Your task to perform on an android device: Find a good burger place on Maps Image 0: 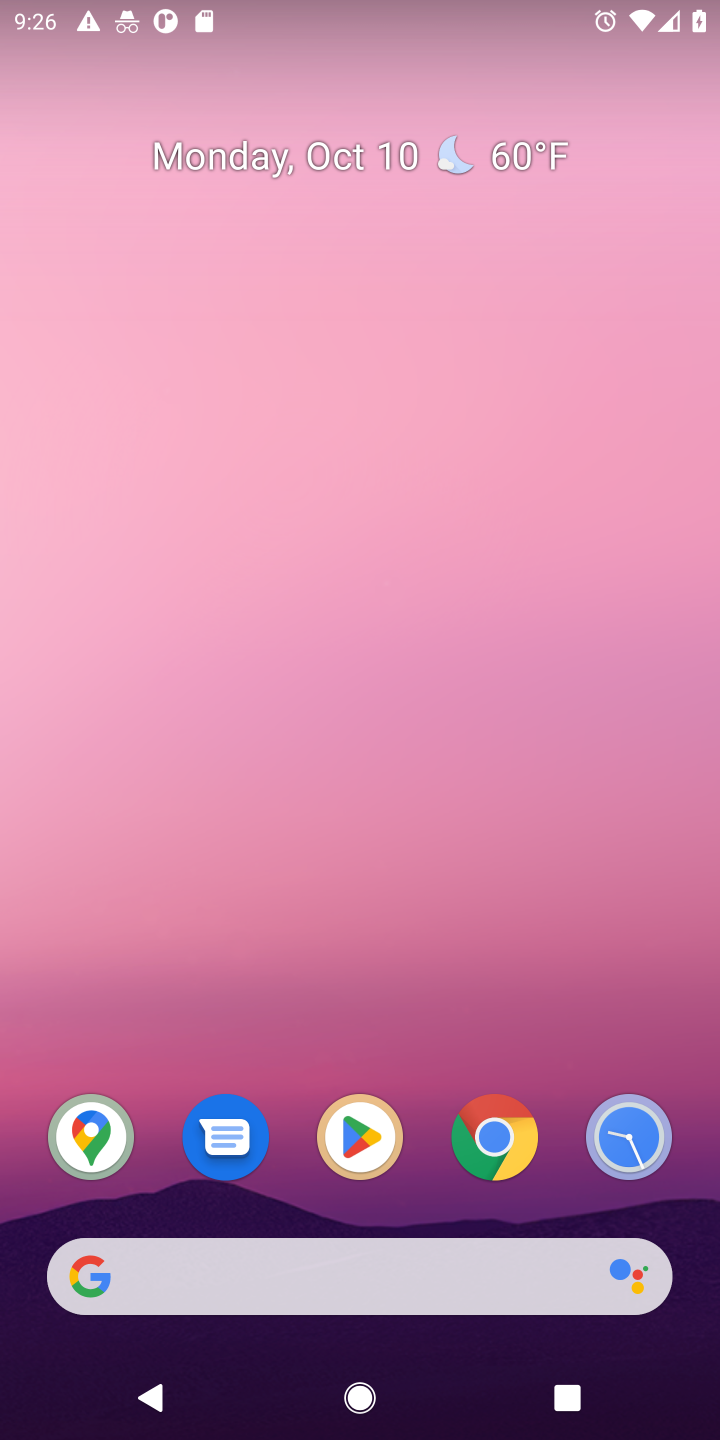
Step 0: click (88, 1128)
Your task to perform on an android device: Find a good burger place on Maps Image 1: 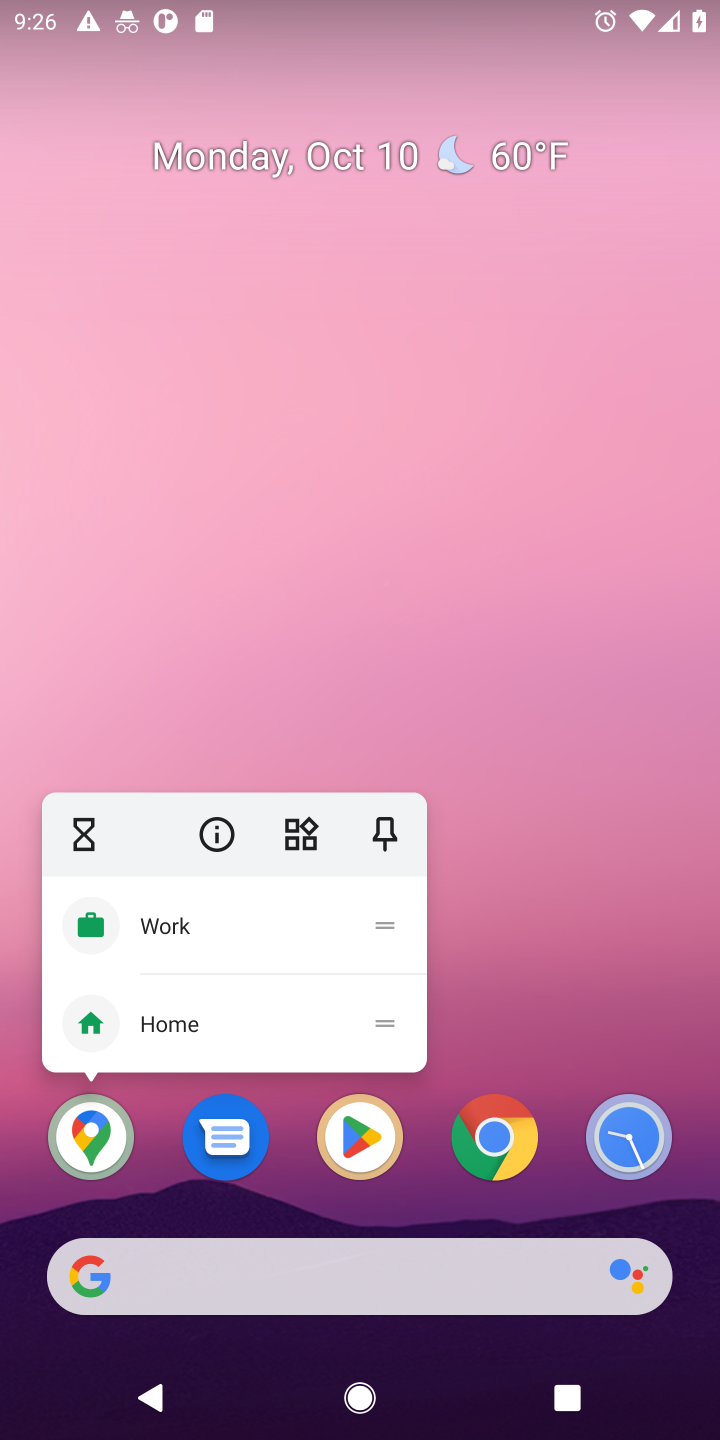
Step 1: click (88, 1128)
Your task to perform on an android device: Find a good burger place on Maps Image 2: 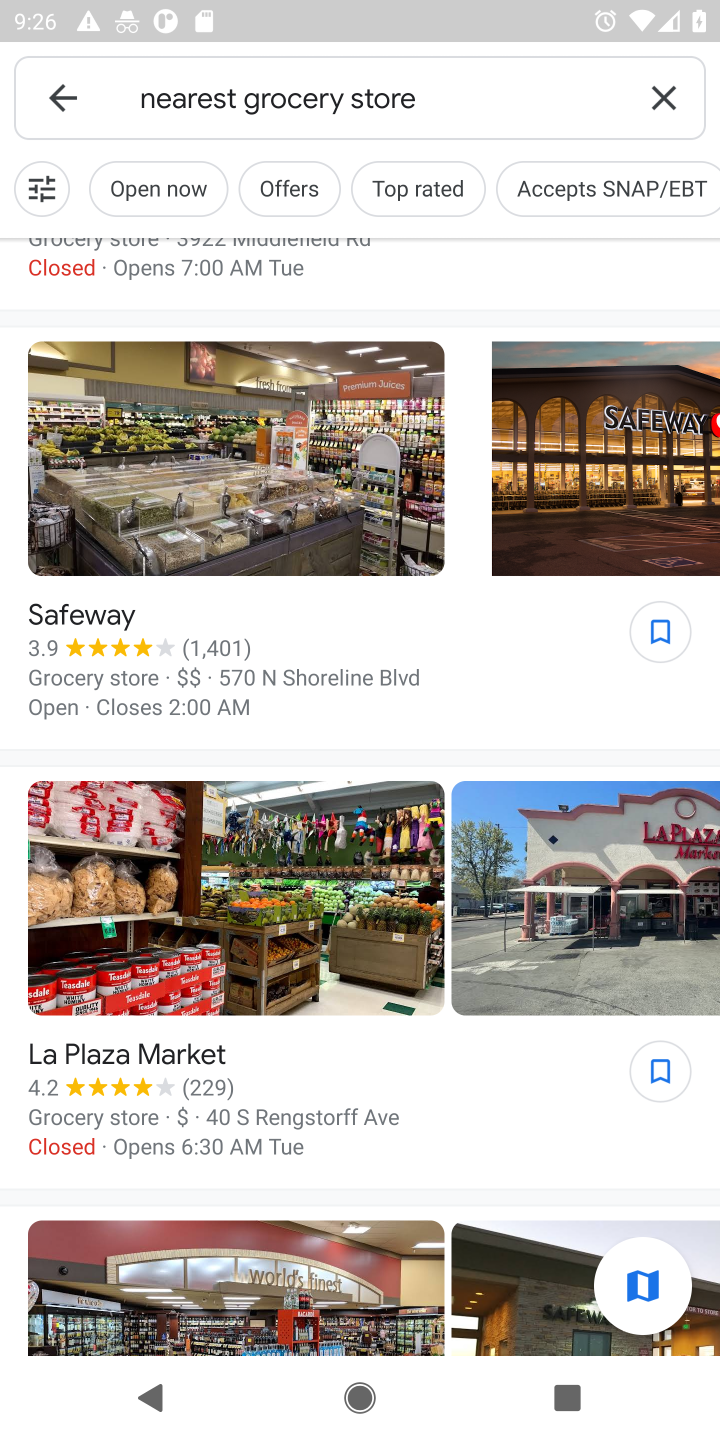
Step 2: click (649, 100)
Your task to perform on an android device: Find a good burger place on Maps Image 3: 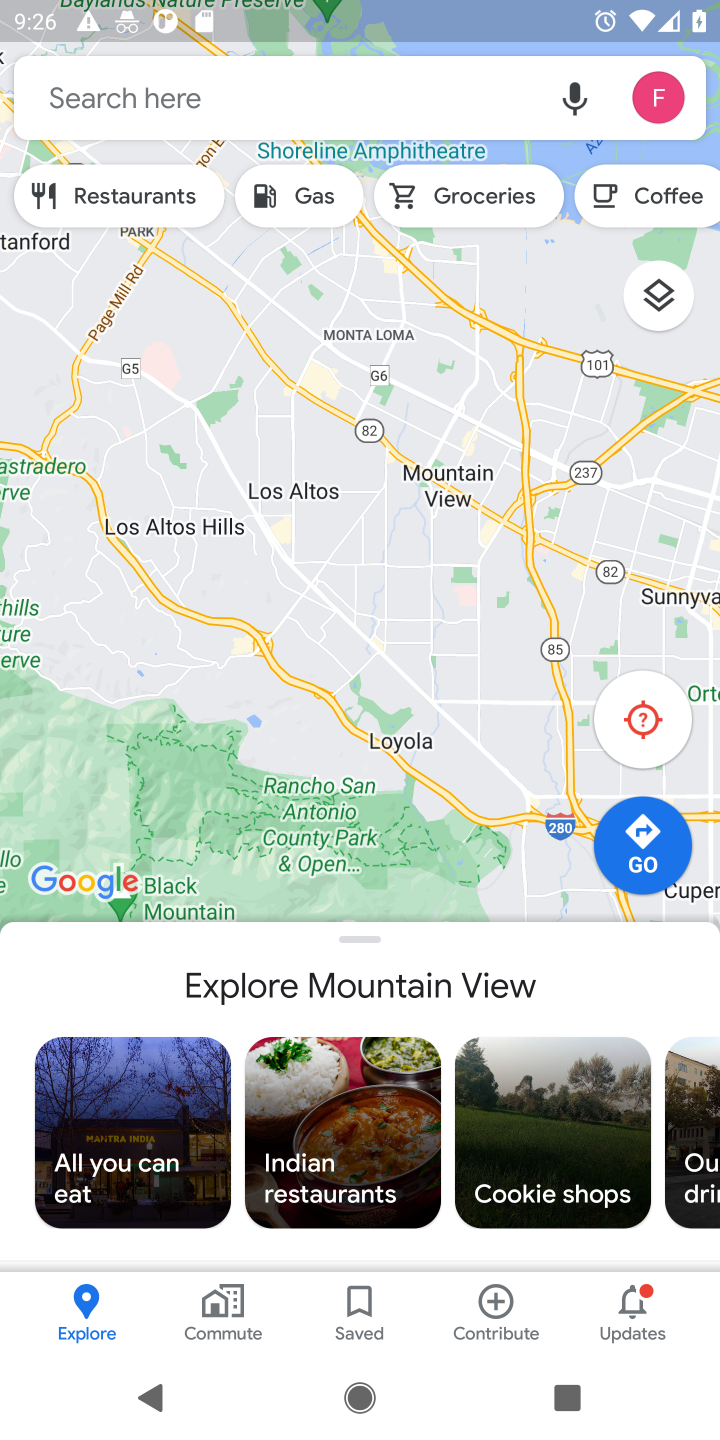
Step 3: click (233, 74)
Your task to perform on an android device: Find a good burger place on Maps Image 4: 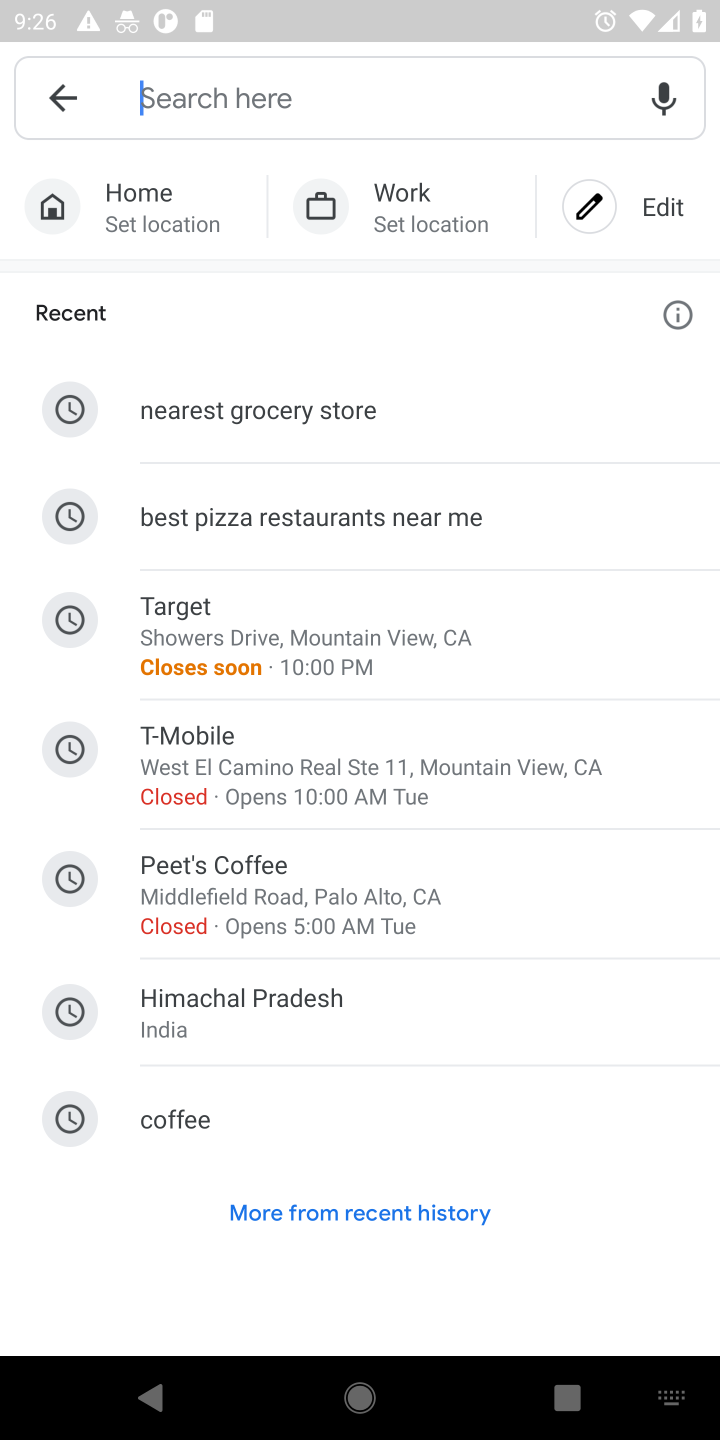
Step 4: type "good burger place"
Your task to perform on an android device: Find a good burger place on Maps Image 5: 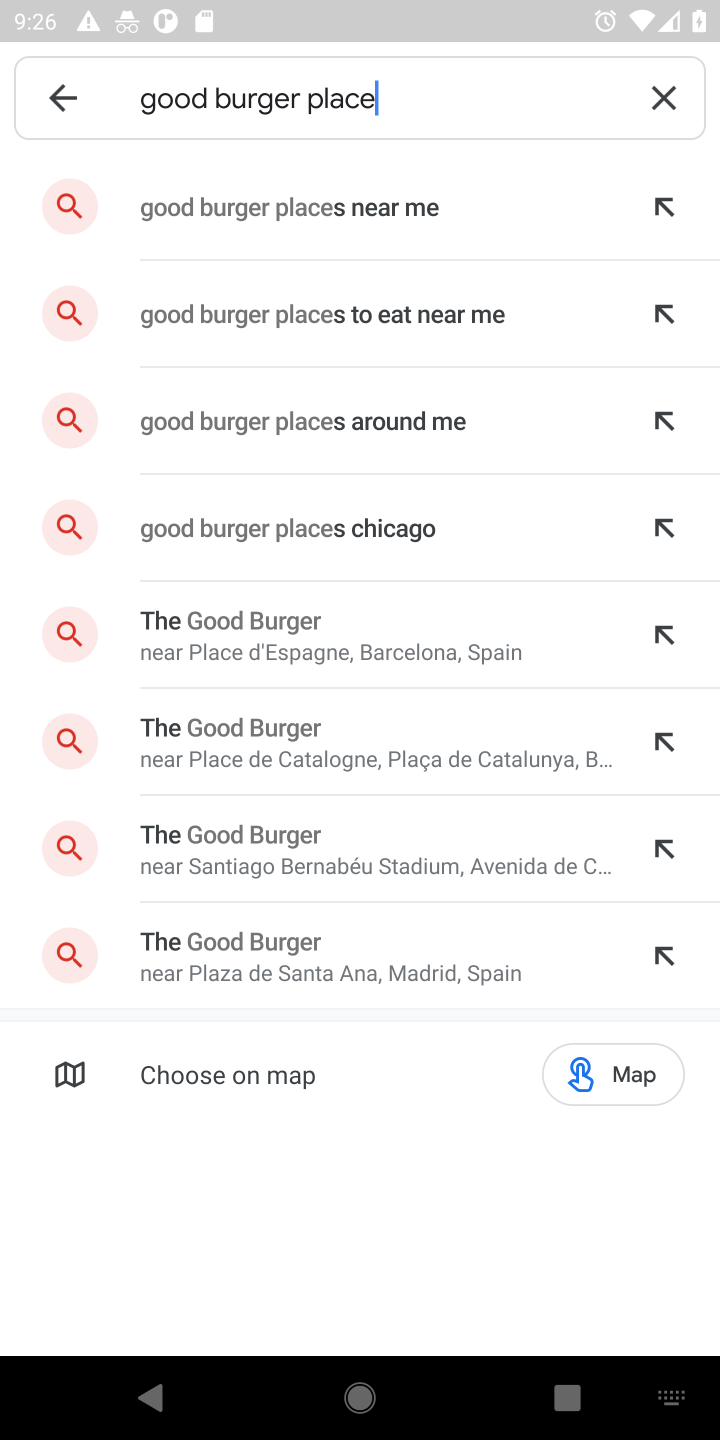
Step 5: type ""
Your task to perform on an android device: Find a good burger place on Maps Image 6: 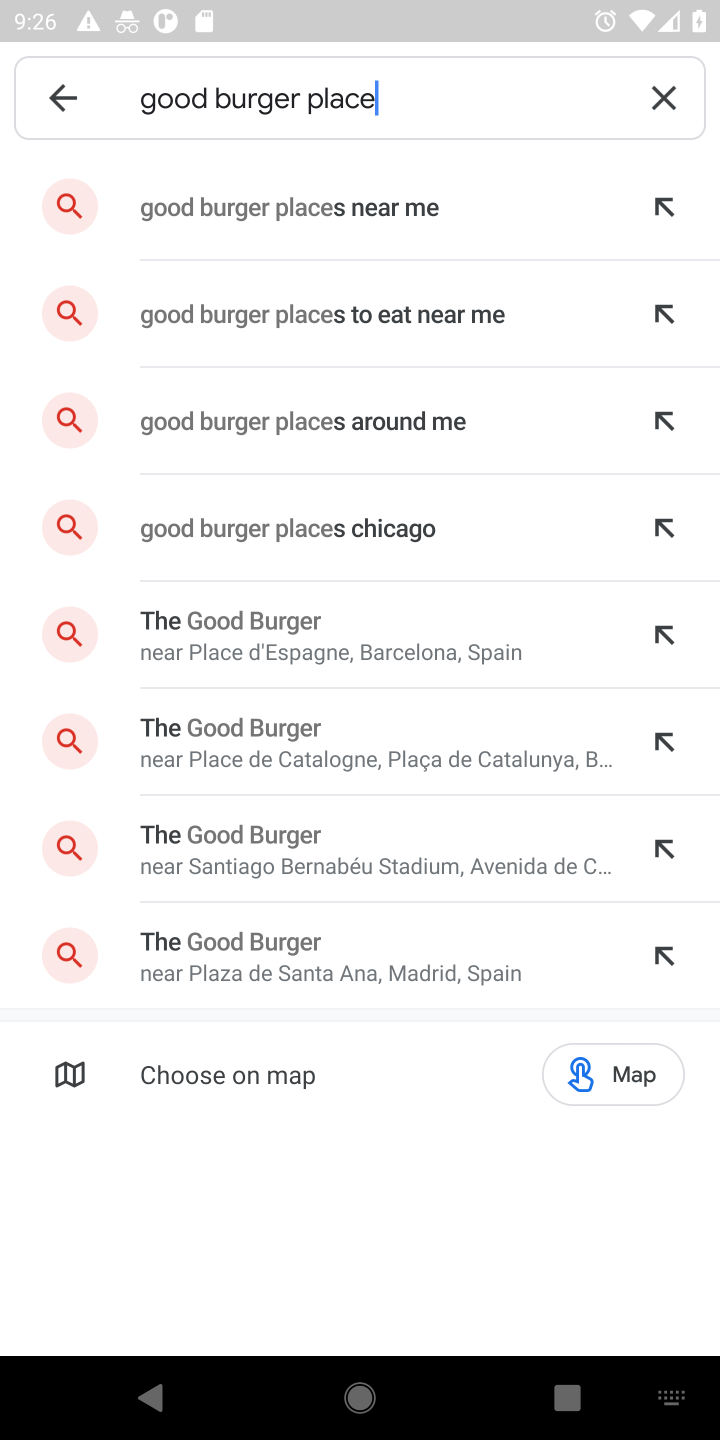
Step 6: click (199, 200)
Your task to perform on an android device: Find a good burger place on Maps Image 7: 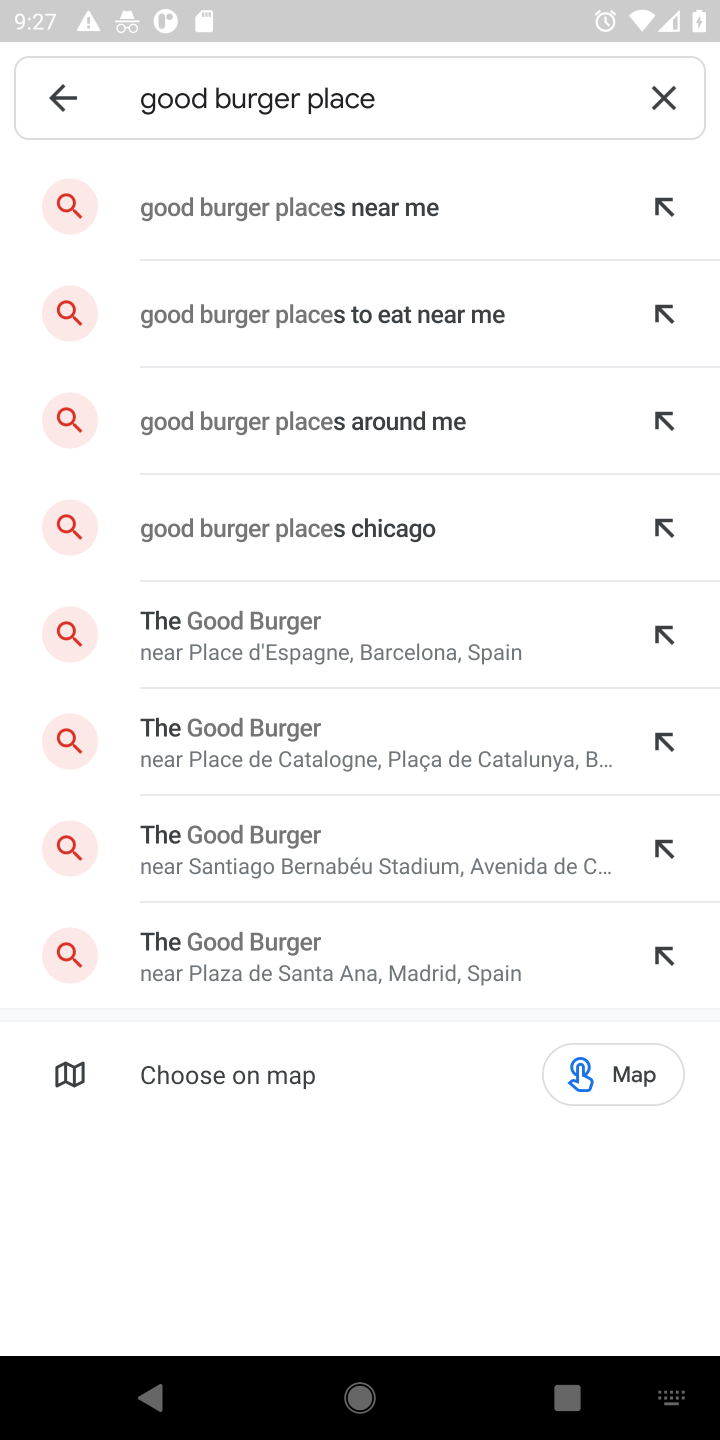
Step 7: click (199, 200)
Your task to perform on an android device: Find a good burger place on Maps Image 8: 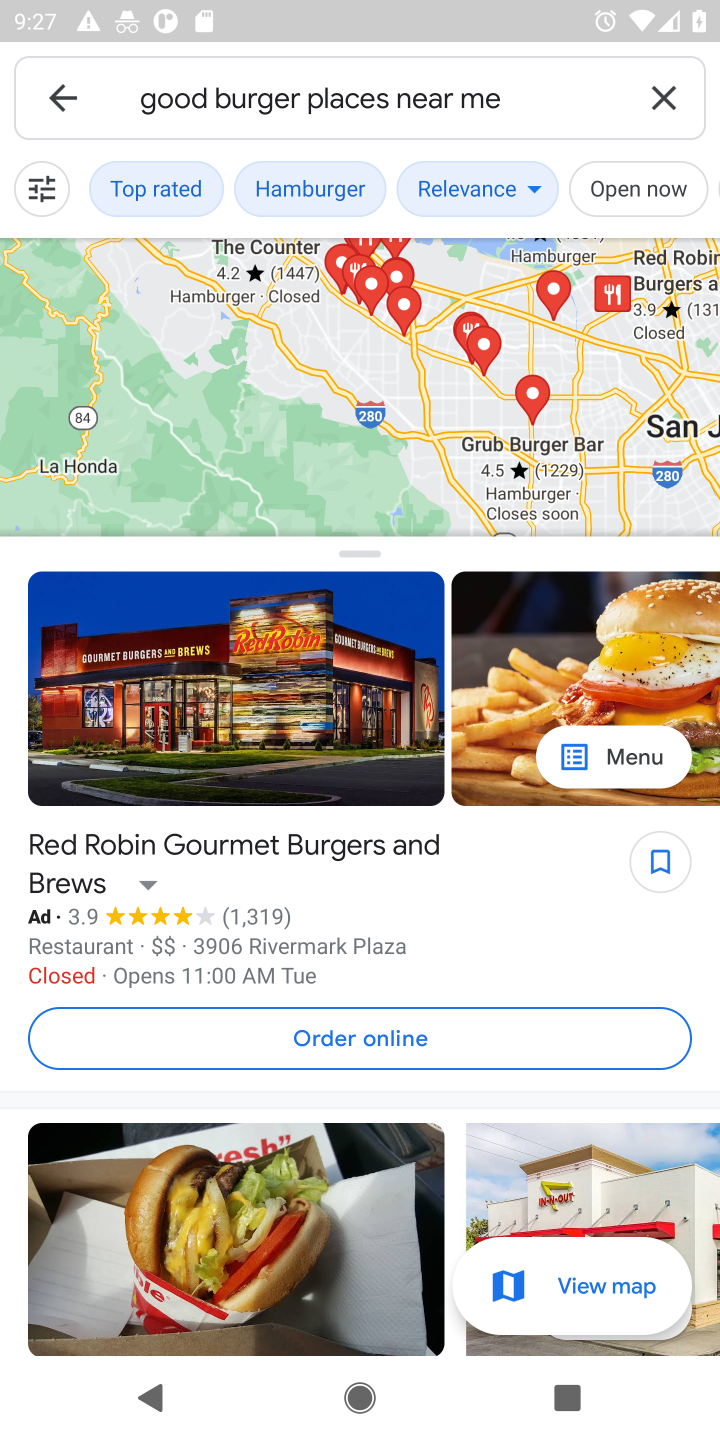
Step 8: task complete